Your task to perform on an android device: install app "Google Play Games" Image 0: 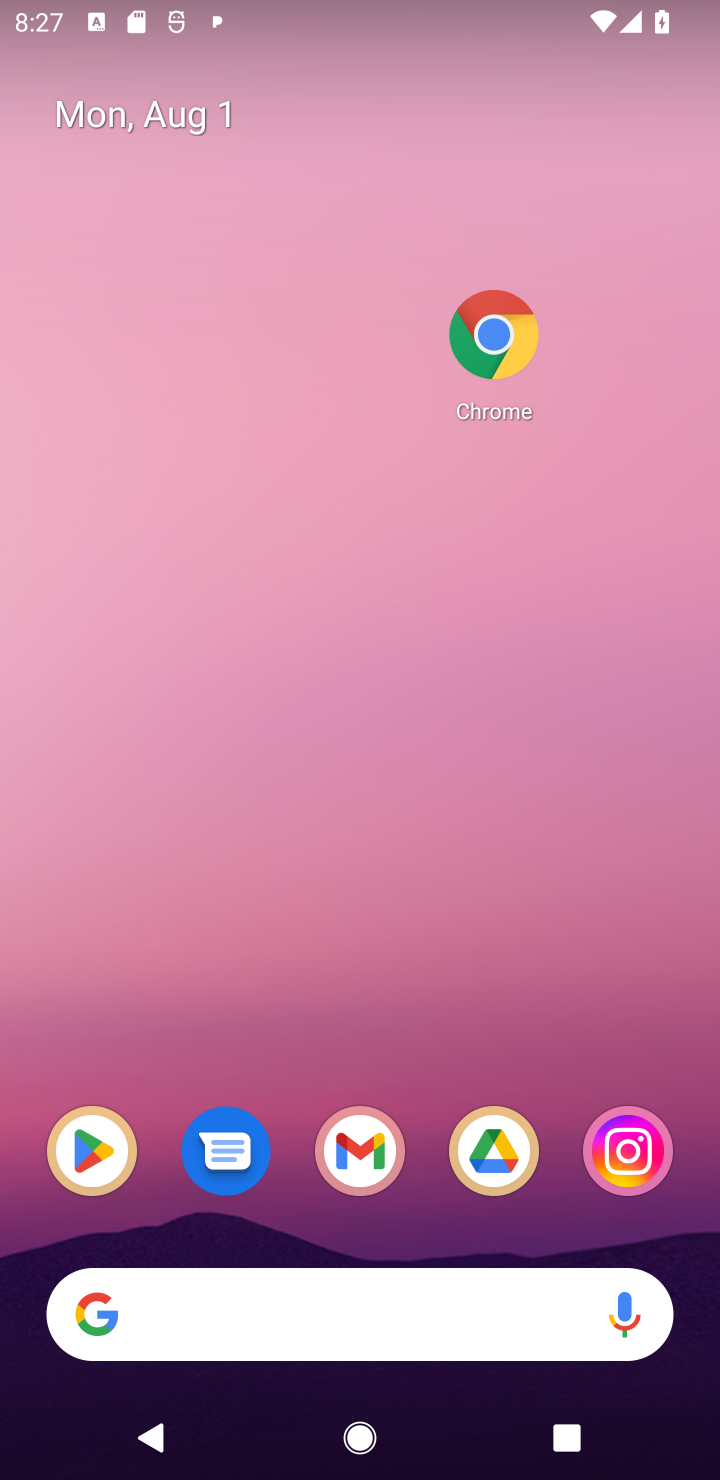
Step 0: click (87, 1173)
Your task to perform on an android device: install app "Google Play Games" Image 1: 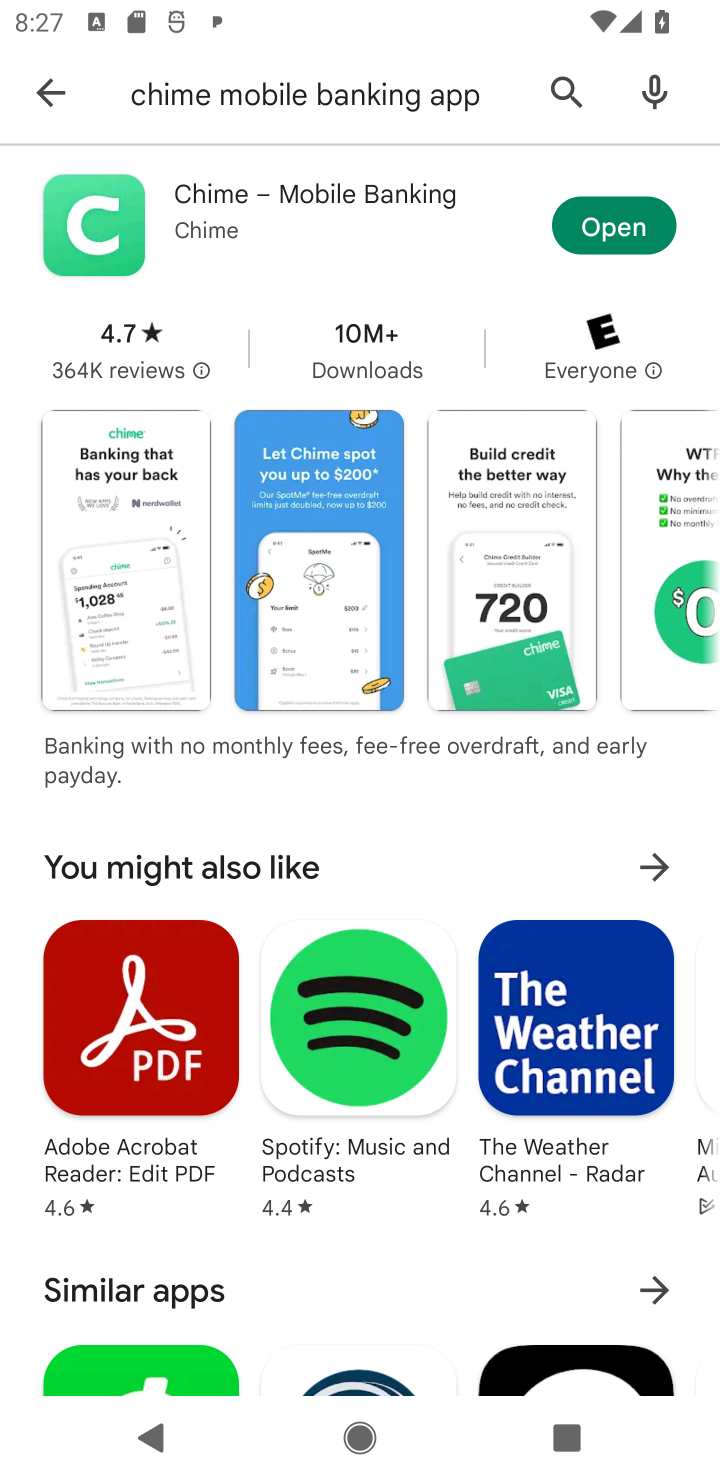
Step 1: click (563, 92)
Your task to perform on an android device: install app "Google Play Games" Image 2: 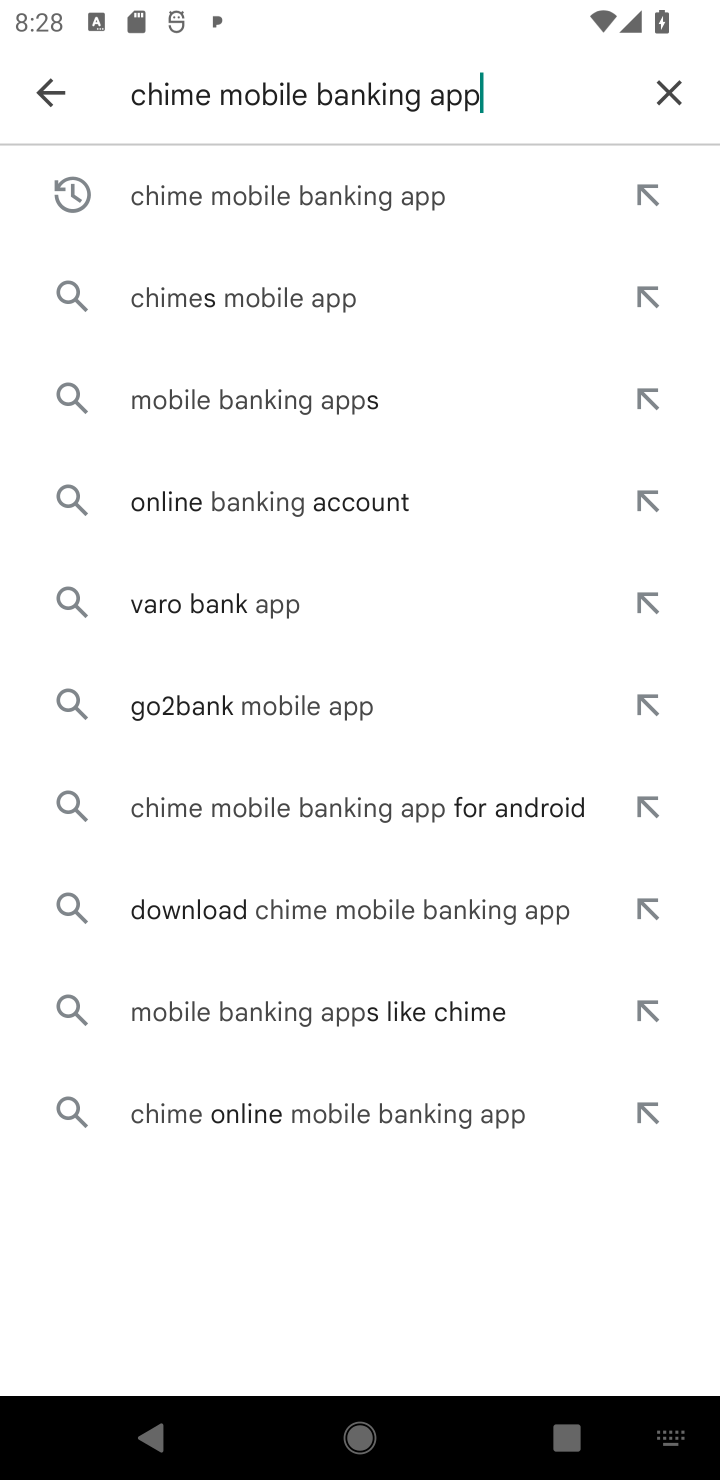
Step 2: click (652, 98)
Your task to perform on an android device: install app "Google Play Games" Image 3: 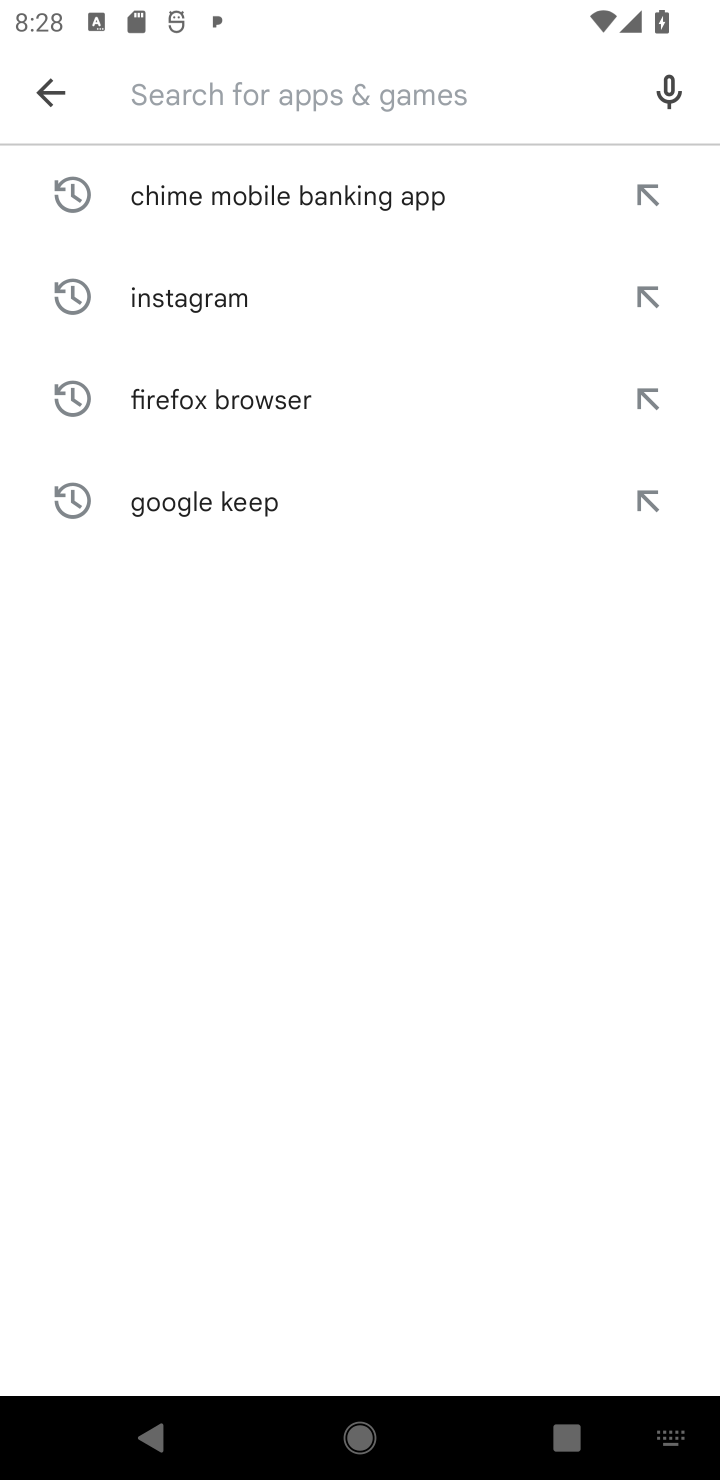
Step 3: type "Google Play Games"
Your task to perform on an android device: install app "Google Play Games" Image 4: 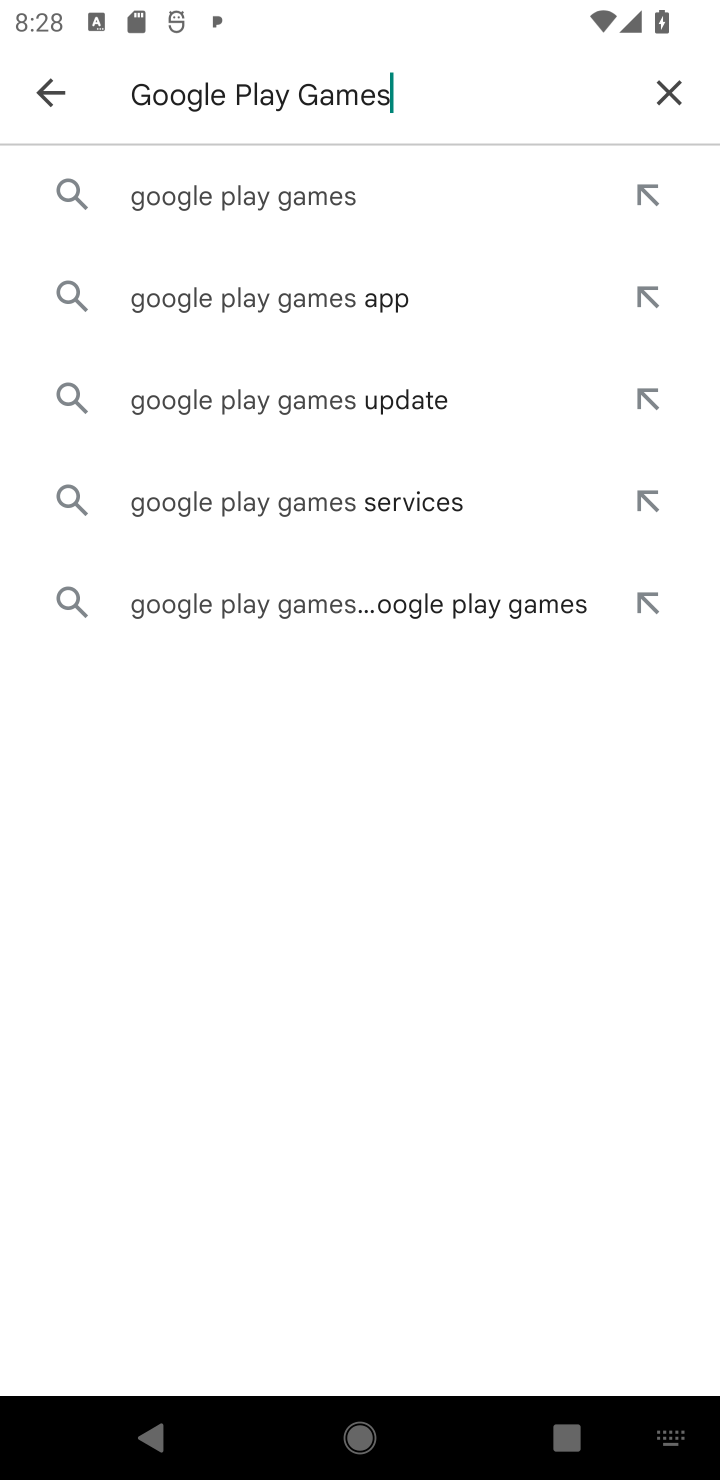
Step 4: click (254, 204)
Your task to perform on an android device: install app "Google Play Games" Image 5: 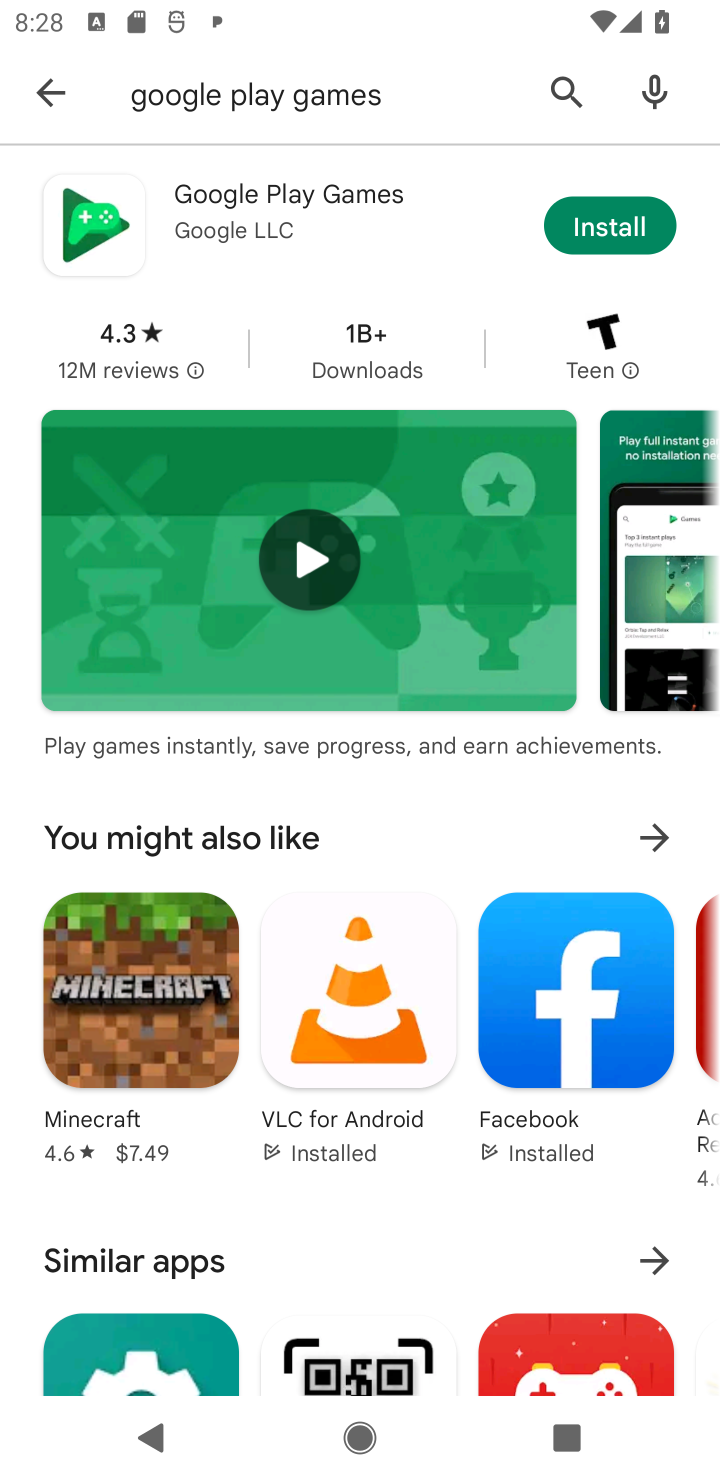
Step 5: click (582, 220)
Your task to perform on an android device: install app "Google Play Games" Image 6: 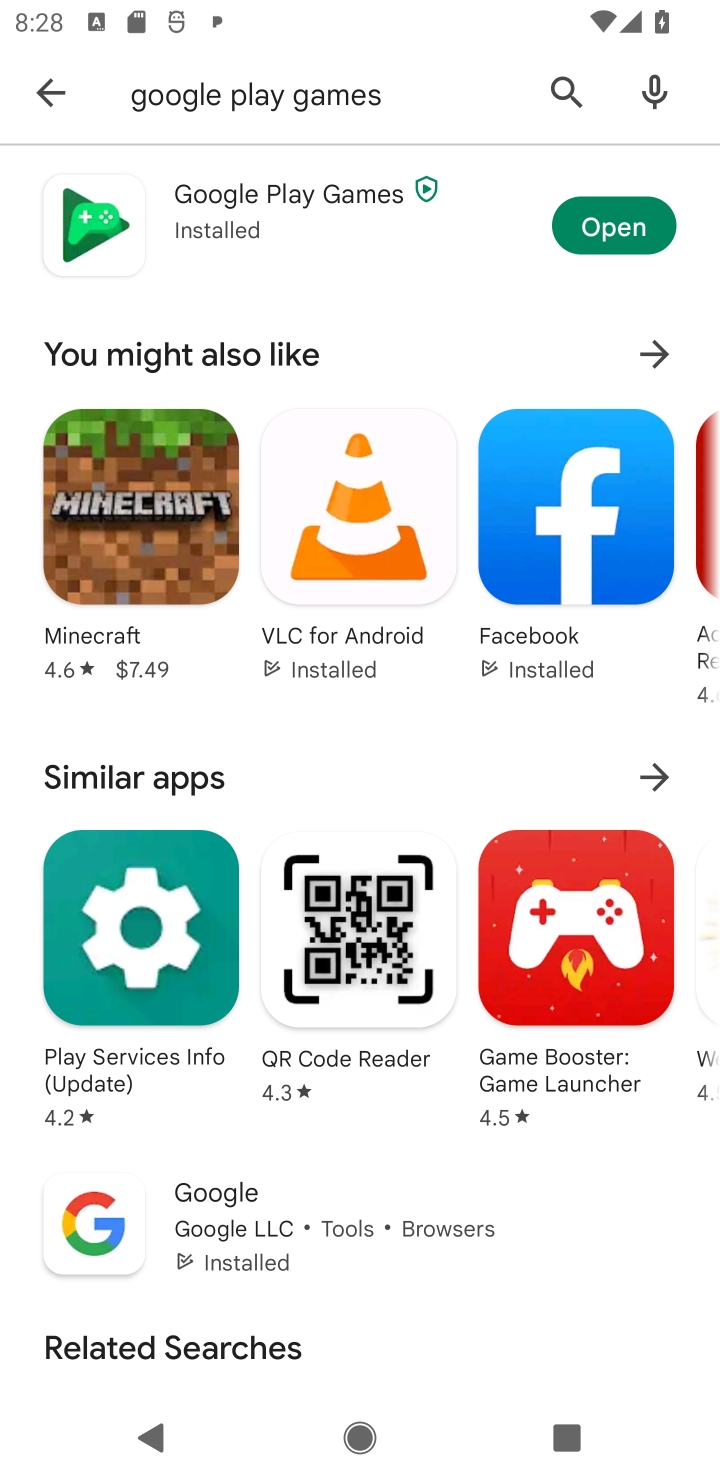
Step 6: task complete